Your task to perform on an android device: turn smart compose on in the gmail app Image 0: 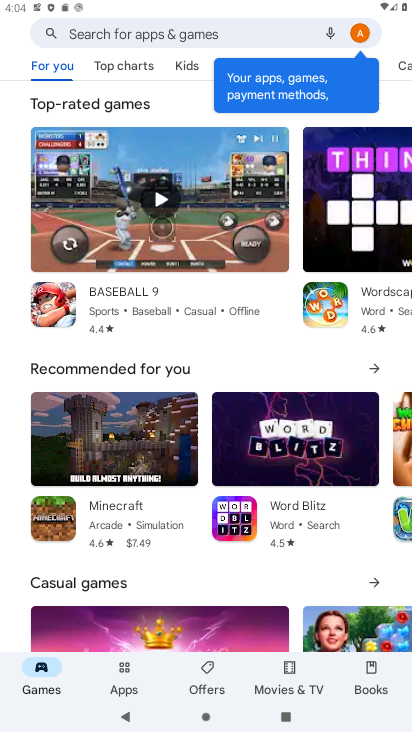
Step 0: press home button
Your task to perform on an android device: turn smart compose on in the gmail app Image 1: 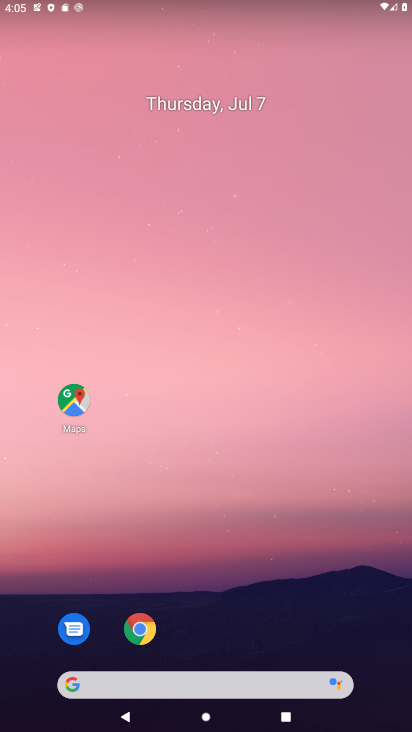
Step 1: drag from (219, 631) to (217, 318)
Your task to perform on an android device: turn smart compose on in the gmail app Image 2: 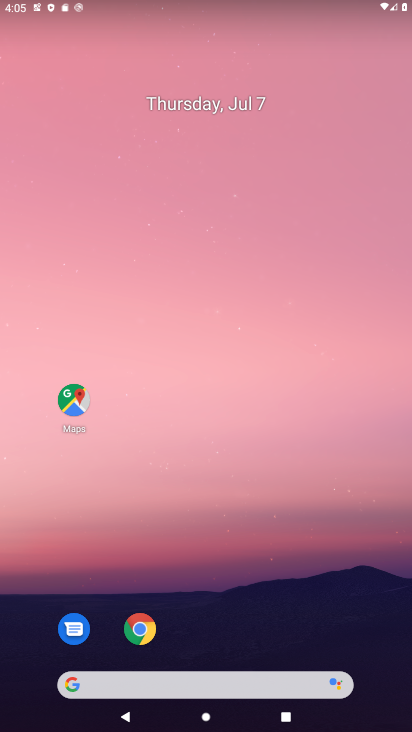
Step 2: drag from (246, 629) to (202, 275)
Your task to perform on an android device: turn smart compose on in the gmail app Image 3: 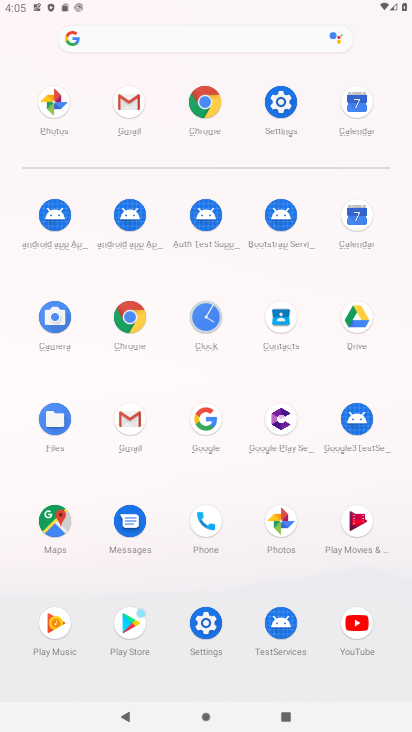
Step 3: click (119, 94)
Your task to perform on an android device: turn smart compose on in the gmail app Image 4: 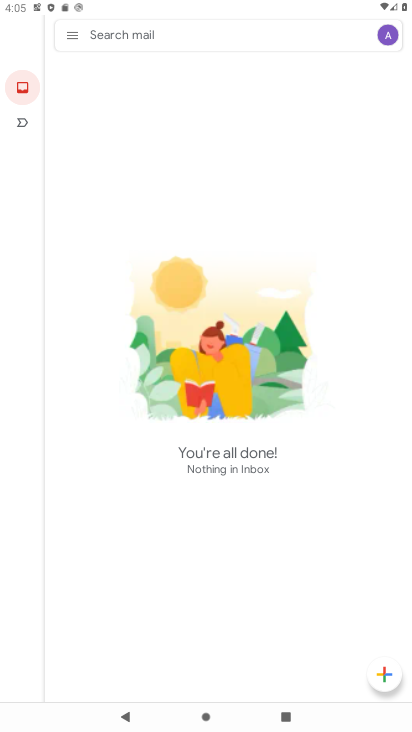
Step 4: click (67, 27)
Your task to perform on an android device: turn smart compose on in the gmail app Image 5: 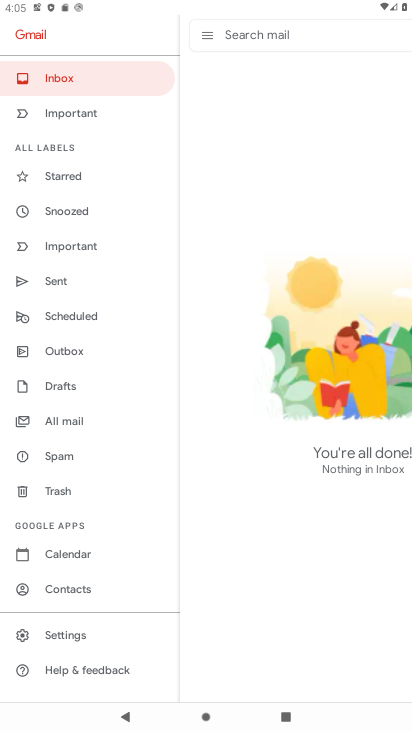
Step 5: click (81, 628)
Your task to perform on an android device: turn smart compose on in the gmail app Image 6: 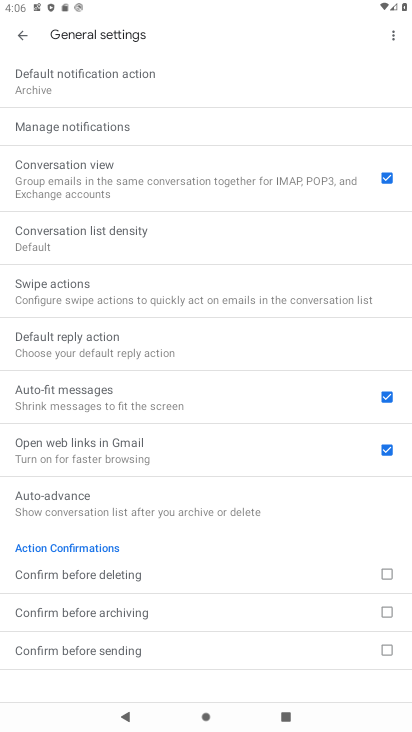
Step 6: click (14, 29)
Your task to perform on an android device: turn smart compose on in the gmail app Image 7: 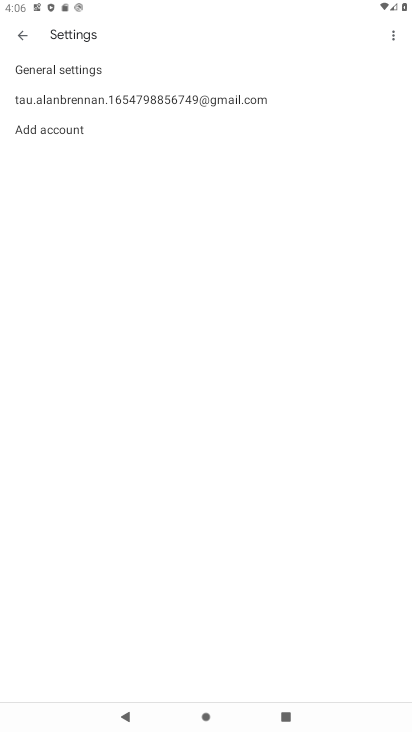
Step 7: click (14, 29)
Your task to perform on an android device: turn smart compose on in the gmail app Image 8: 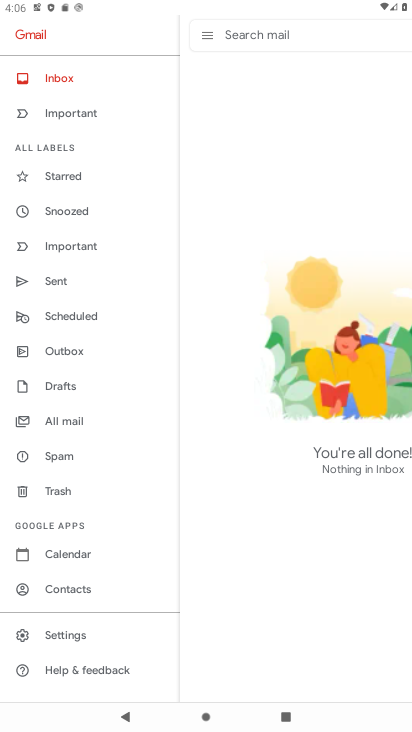
Step 8: click (64, 626)
Your task to perform on an android device: turn smart compose on in the gmail app Image 9: 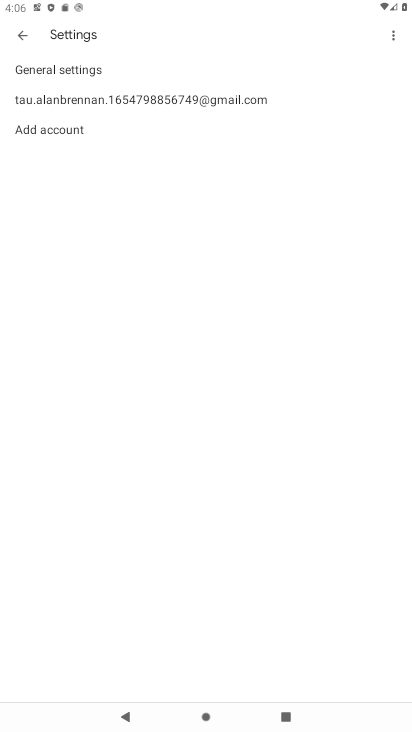
Step 9: click (73, 90)
Your task to perform on an android device: turn smart compose on in the gmail app Image 10: 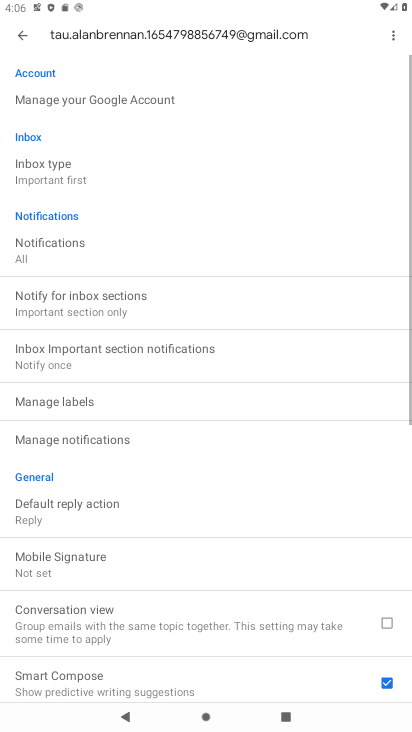
Step 10: drag from (140, 580) to (201, 133)
Your task to perform on an android device: turn smart compose on in the gmail app Image 11: 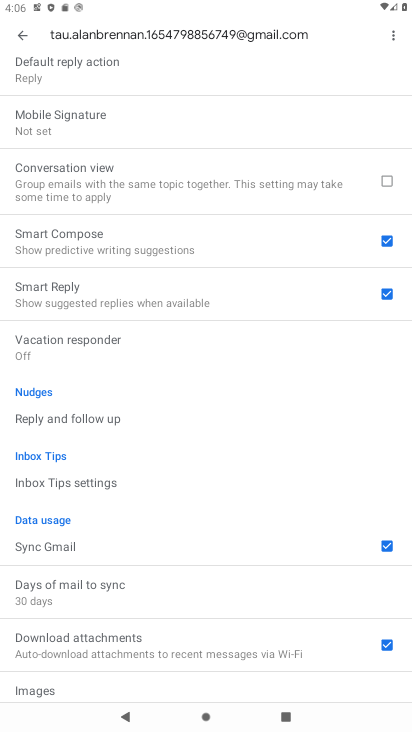
Step 11: click (391, 230)
Your task to perform on an android device: turn smart compose on in the gmail app Image 12: 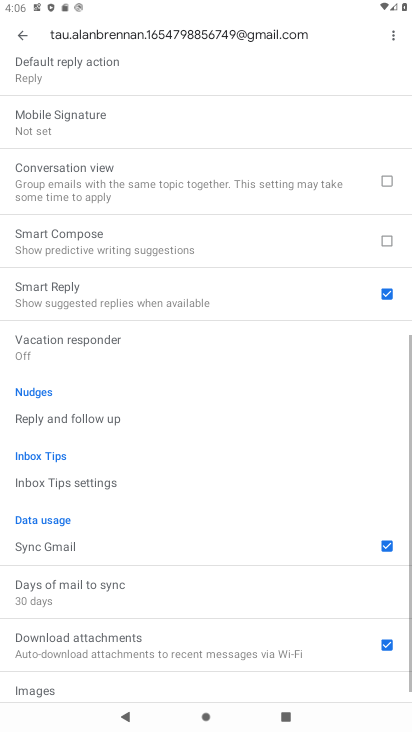
Step 12: click (391, 230)
Your task to perform on an android device: turn smart compose on in the gmail app Image 13: 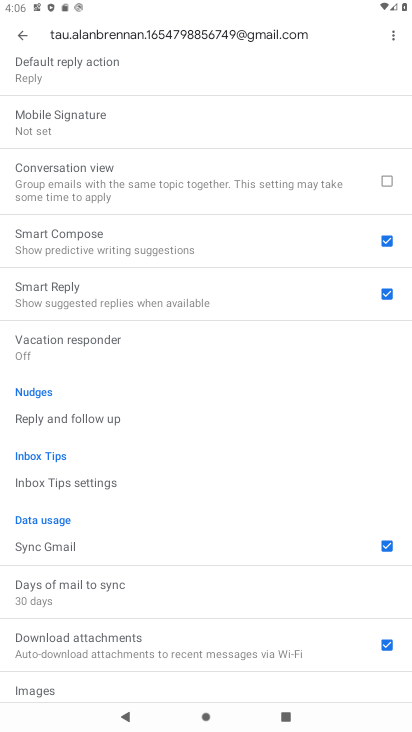
Step 13: task complete